Your task to perform on an android device: uninstall "File Manager" Image 0: 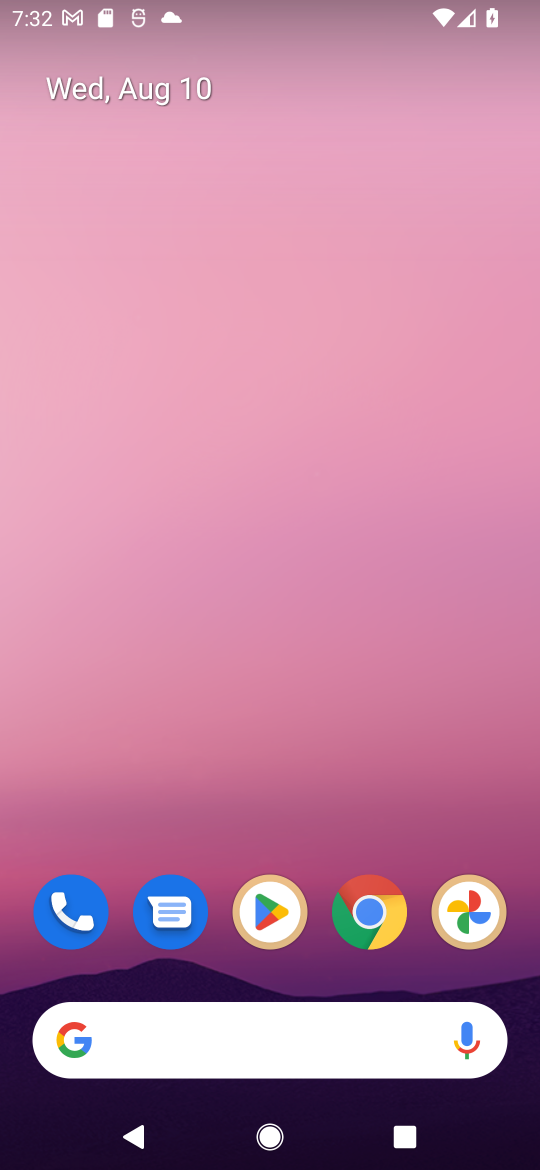
Step 0: drag from (377, 761) to (182, 71)
Your task to perform on an android device: uninstall "File Manager" Image 1: 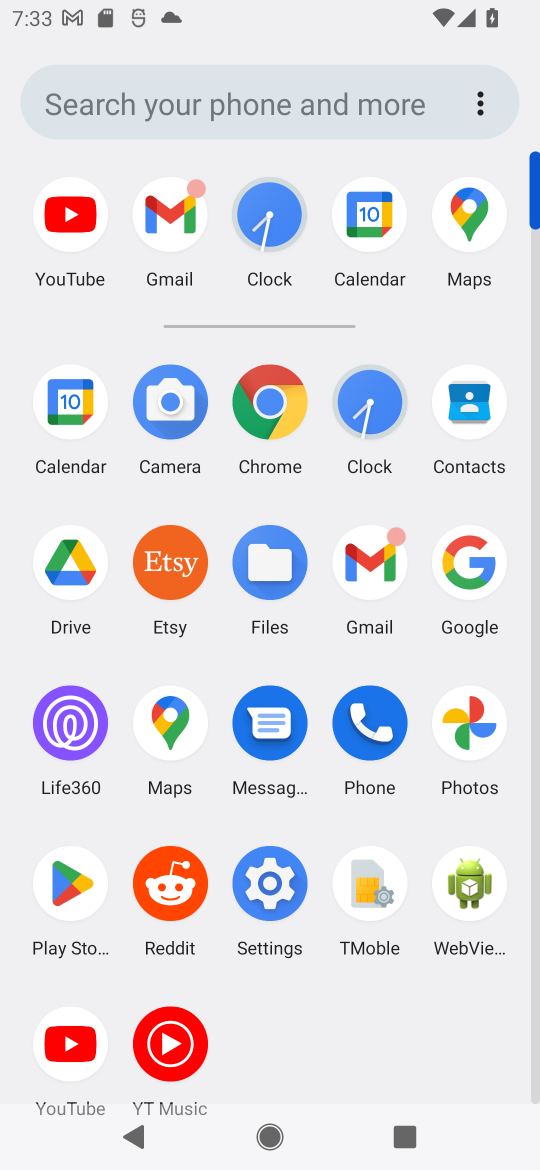
Step 1: click (71, 913)
Your task to perform on an android device: uninstall "File Manager" Image 2: 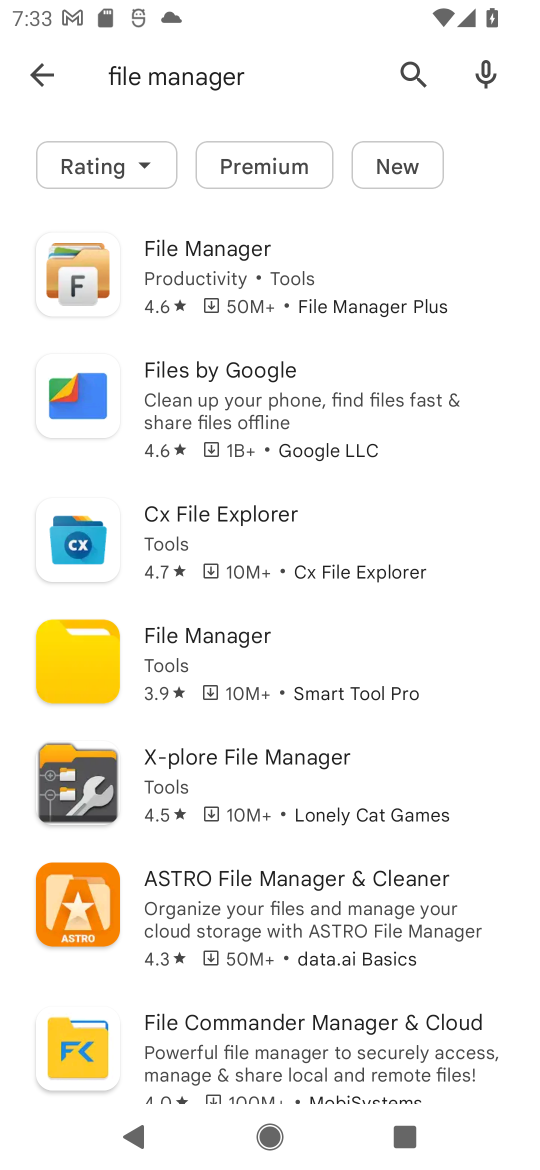
Step 2: task complete